Your task to perform on an android device: check android version Image 0: 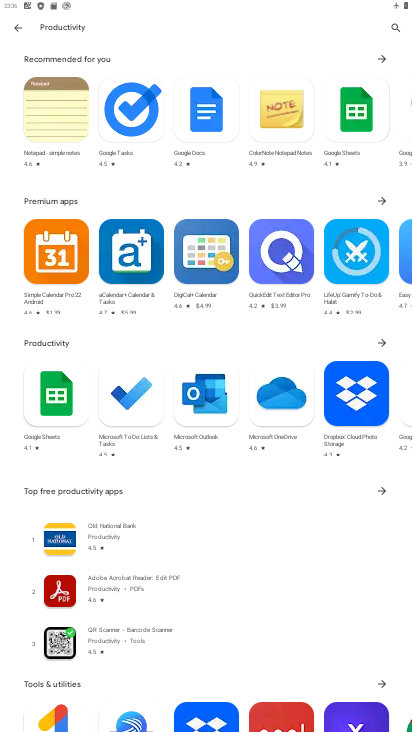
Step 0: press home button
Your task to perform on an android device: check android version Image 1: 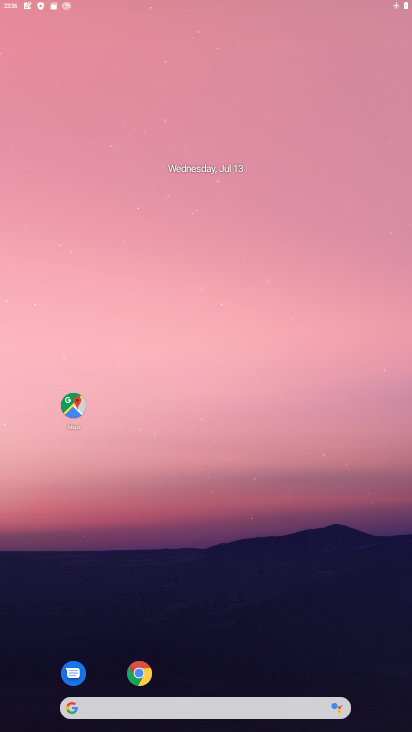
Step 1: drag from (201, 644) to (230, 74)
Your task to perform on an android device: check android version Image 2: 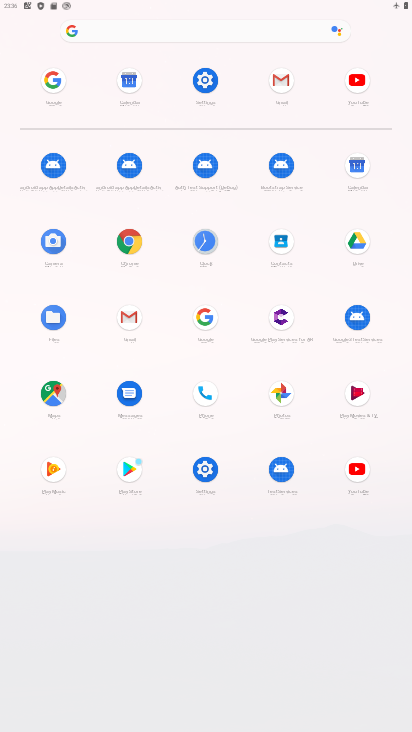
Step 2: click (207, 85)
Your task to perform on an android device: check android version Image 3: 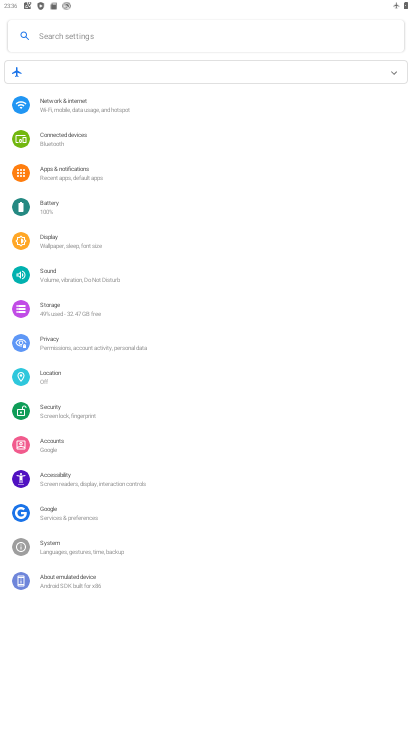
Step 3: click (60, 584)
Your task to perform on an android device: check android version Image 4: 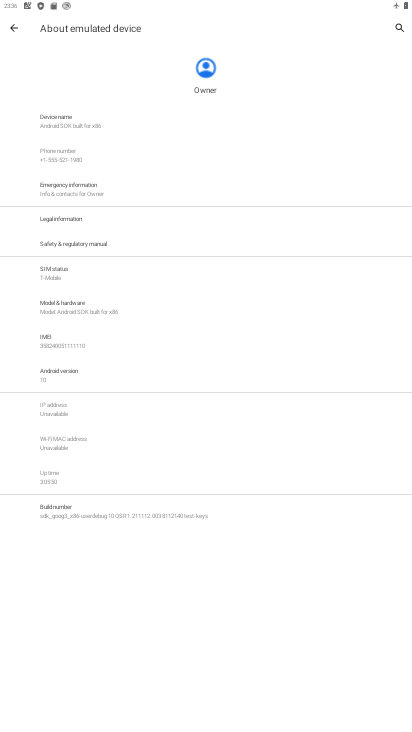
Step 4: click (78, 368)
Your task to perform on an android device: check android version Image 5: 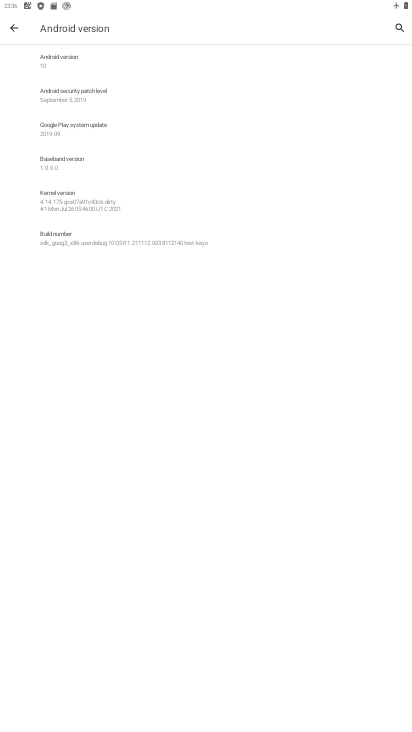
Step 5: click (96, 61)
Your task to perform on an android device: check android version Image 6: 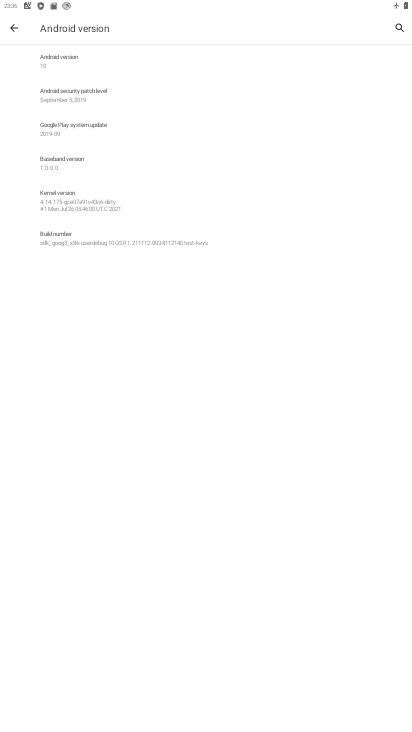
Step 6: task complete